Your task to perform on an android device: Go to accessibility settings Image 0: 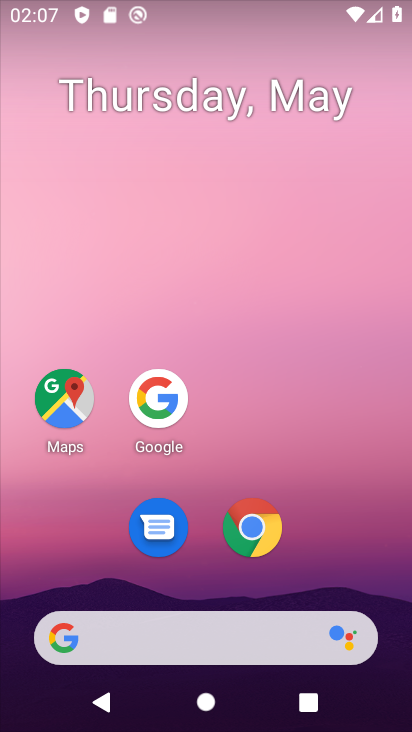
Step 0: drag from (205, 522) to (235, 199)
Your task to perform on an android device: Go to accessibility settings Image 1: 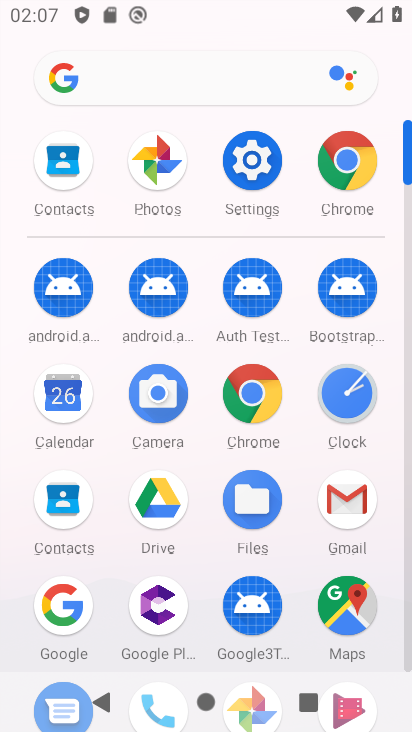
Step 1: click (249, 162)
Your task to perform on an android device: Go to accessibility settings Image 2: 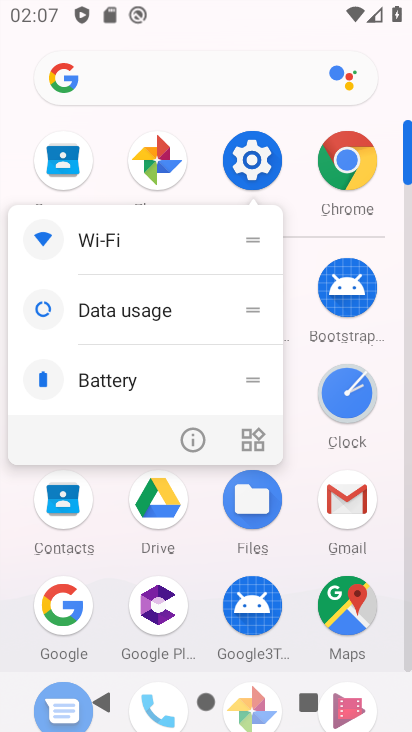
Step 2: click (186, 427)
Your task to perform on an android device: Go to accessibility settings Image 3: 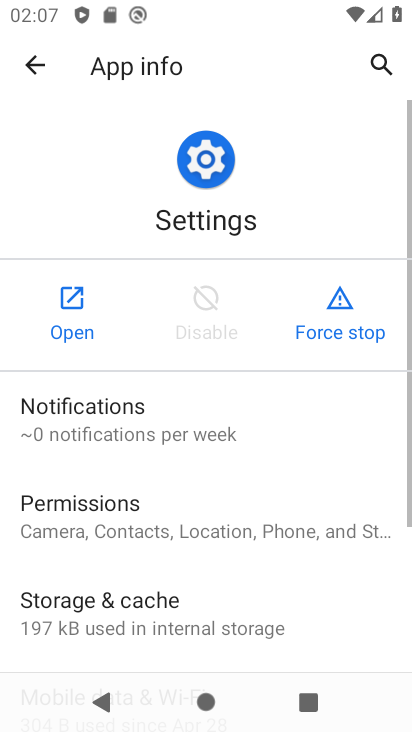
Step 3: click (40, 309)
Your task to perform on an android device: Go to accessibility settings Image 4: 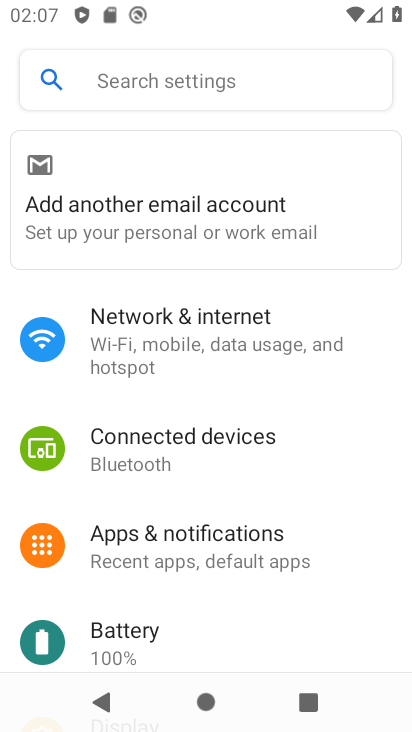
Step 4: drag from (208, 582) to (301, 177)
Your task to perform on an android device: Go to accessibility settings Image 5: 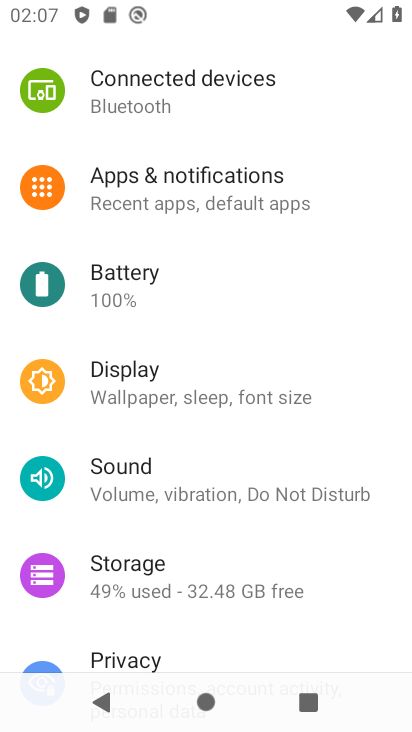
Step 5: drag from (202, 551) to (284, 182)
Your task to perform on an android device: Go to accessibility settings Image 6: 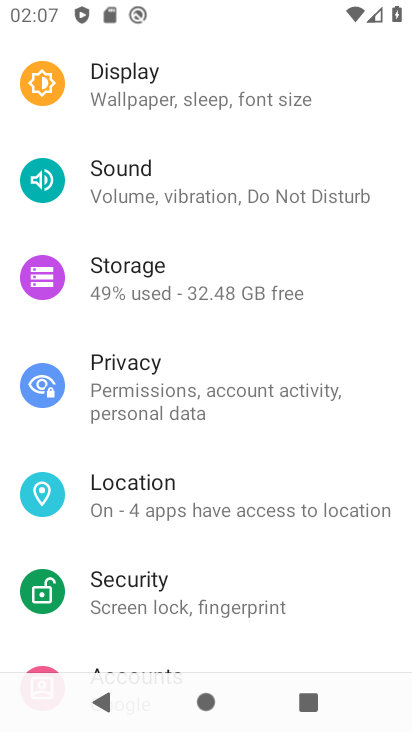
Step 6: drag from (173, 616) to (275, 153)
Your task to perform on an android device: Go to accessibility settings Image 7: 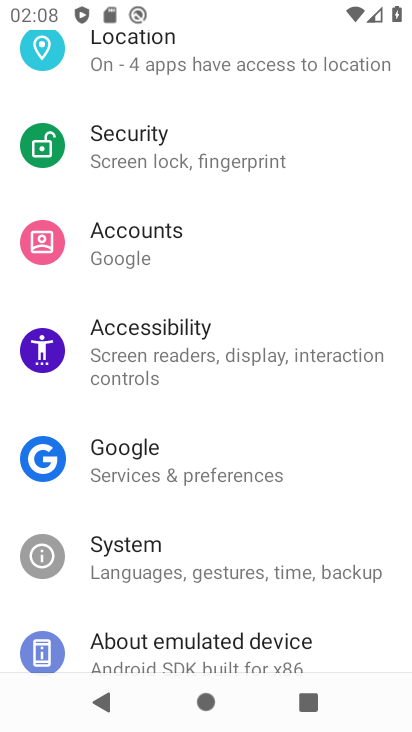
Step 7: click (193, 358)
Your task to perform on an android device: Go to accessibility settings Image 8: 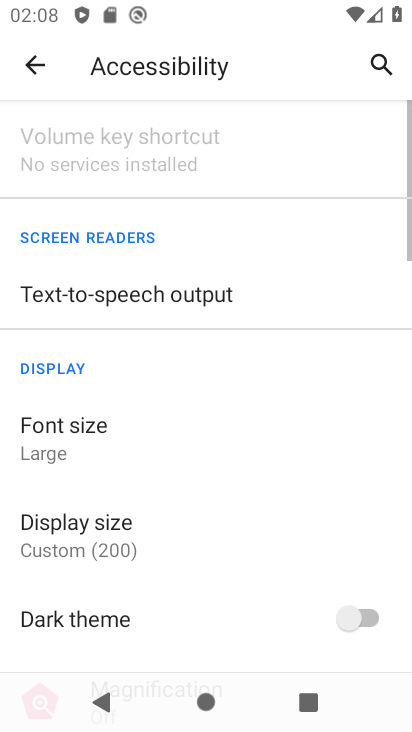
Step 8: task complete